Your task to perform on an android device: Open Android settings Image 0: 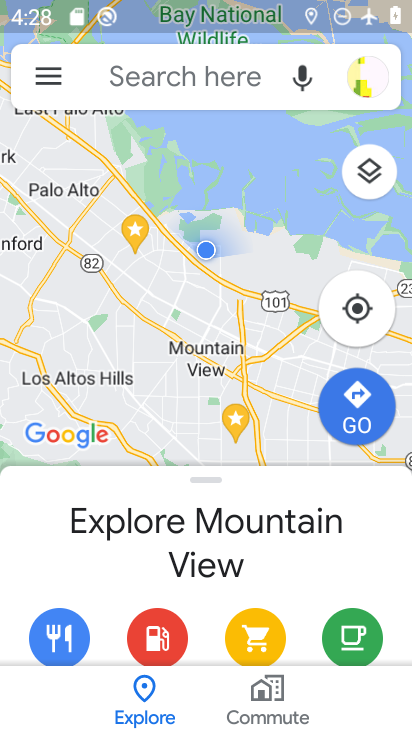
Step 0: press home button
Your task to perform on an android device: Open Android settings Image 1: 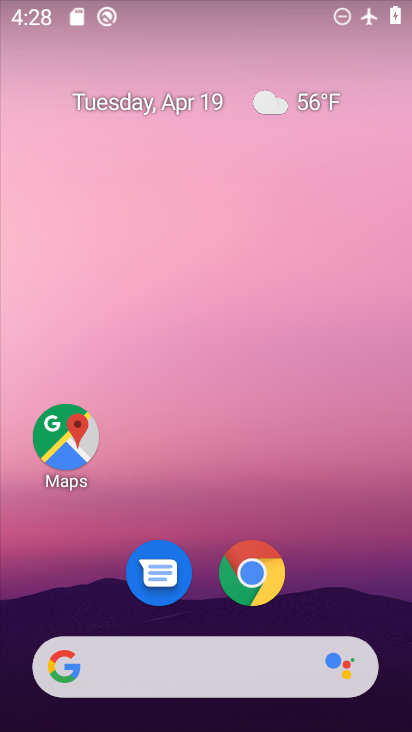
Step 1: drag from (339, 559) to (374, 8)
Your task to perform on an android device: Open Android settings Image 2: 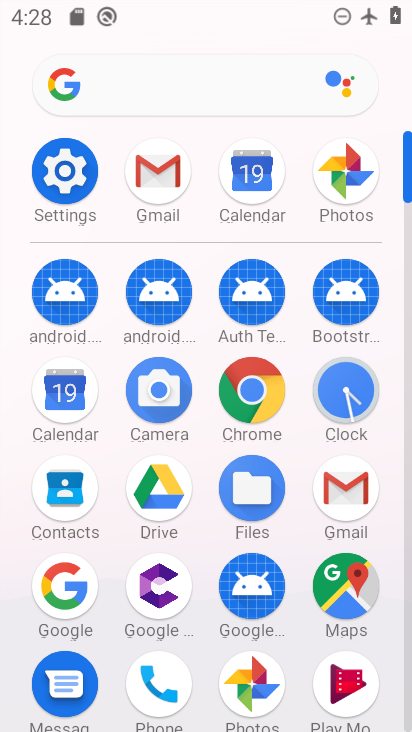
Step 2: click (69, 180)
Your task to perform on an android device: Open Android settings Image 3: 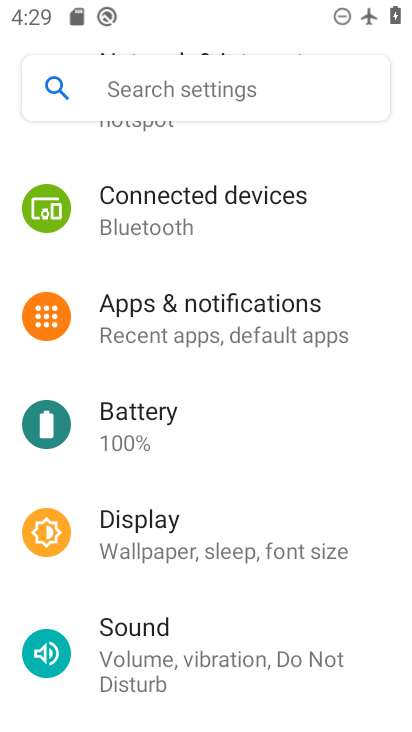
Step 3: drag from (356, 592) to (357, 182)
Your task to perform on an android device: Open Android settings Image 4: 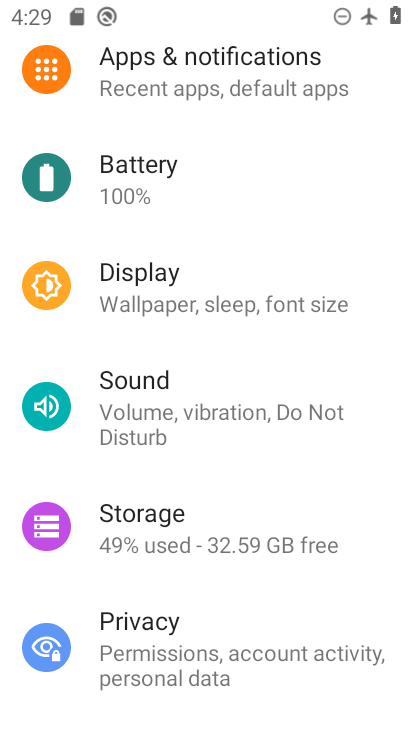
Step 4: drag from (318, 644) to (320, 89)
Your task to perform on an android device: Open Android settings Image 5: 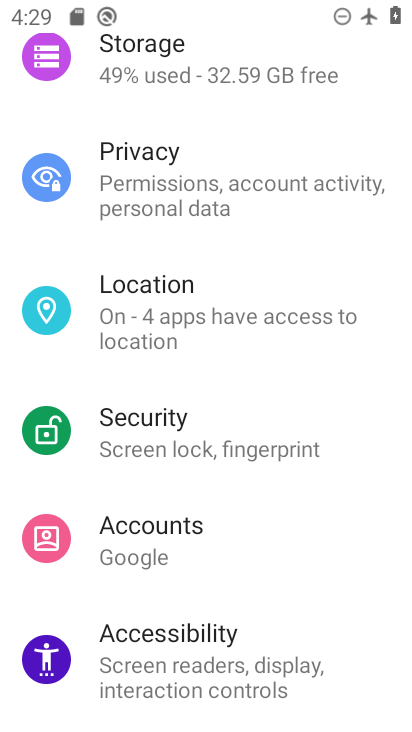
Step 5: drag from (312, 520) to (305, 180)
Your task to perform on an android device: Open Android settings Image 6: 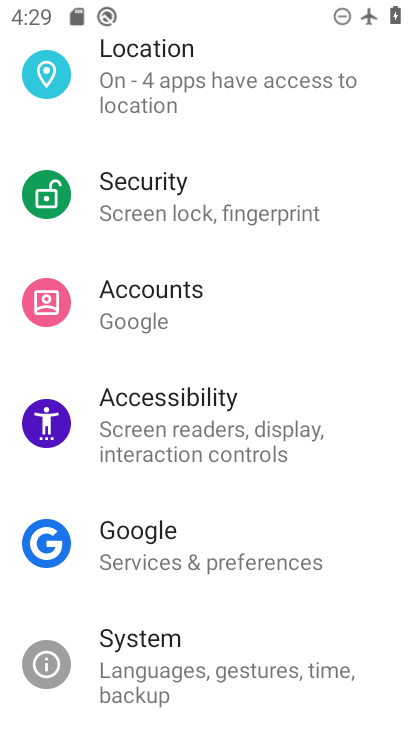
Step 6: click (115, 668)
Your task to perform on an android device: Open Android settings Image 7: 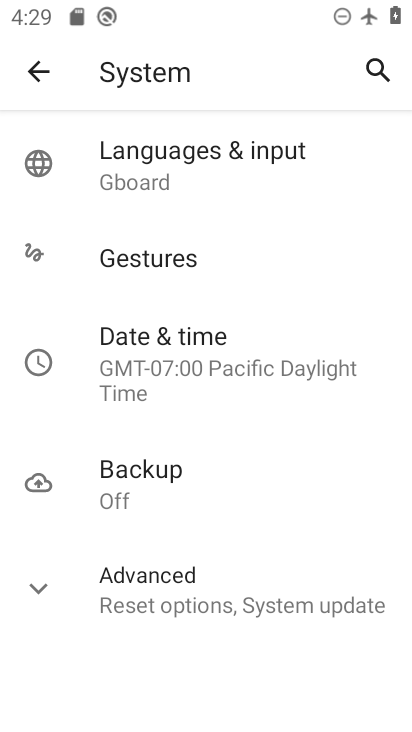
Step 7: click (31, 596)
Your task to perform on an android device: Open Android settings Image 8: 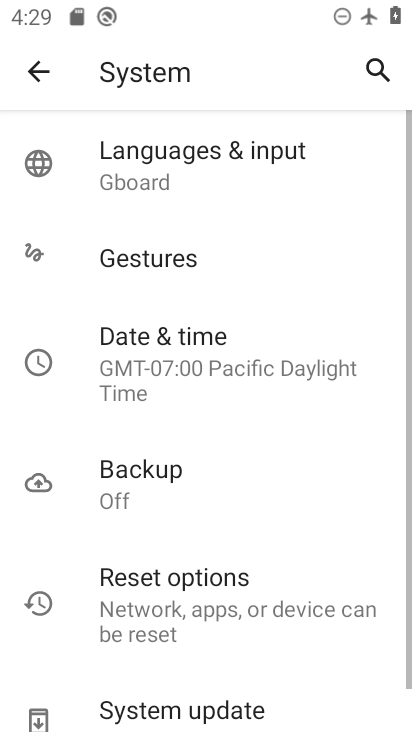
Step 8: task complete